Your task to perform on an android device: install app "Fetch Rewards" Image 0: 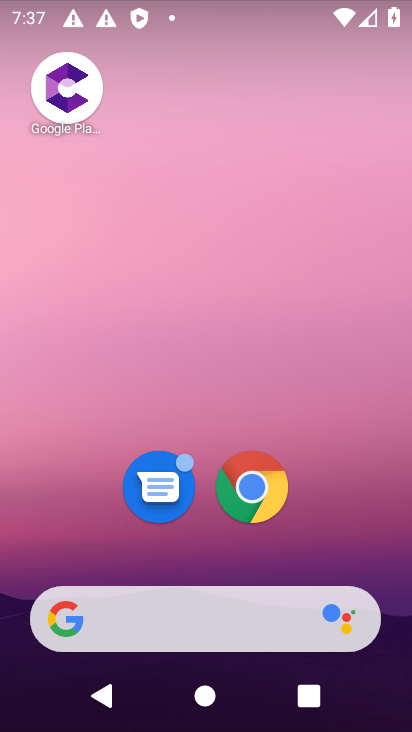
Step 0: drag from (201, 612) to (73, 12)
Your task to perform on an android device: install app "Fetch Rewards" Image 1: 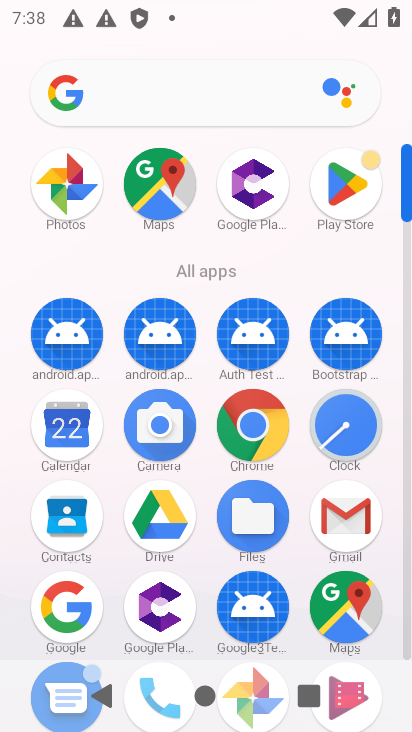
Step 1: click (349, 188)
Your task to perform on an android device: install app "Fetch Rewards" Image 2: 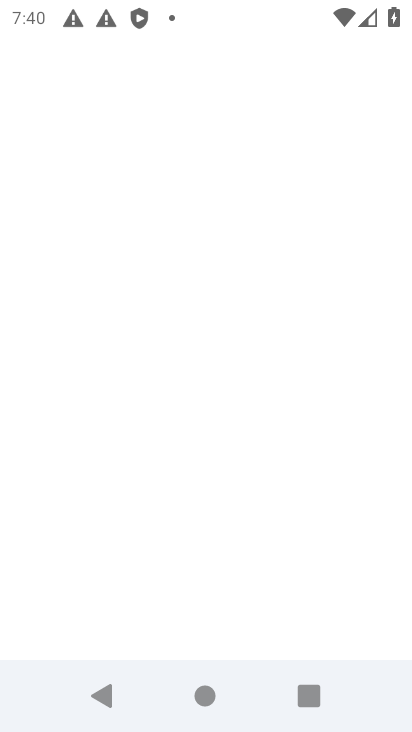
Step 2: task complete